Your task to perform on an android device: Open Chrome and go to settings Image 0: 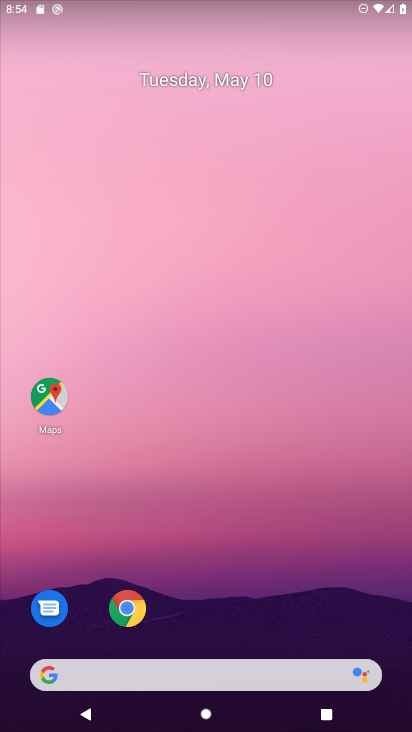
Step 0: drag from (356, 635) to (249, 95)
Your task to perform on an android device: Open Chrome and go to settings Image 1: 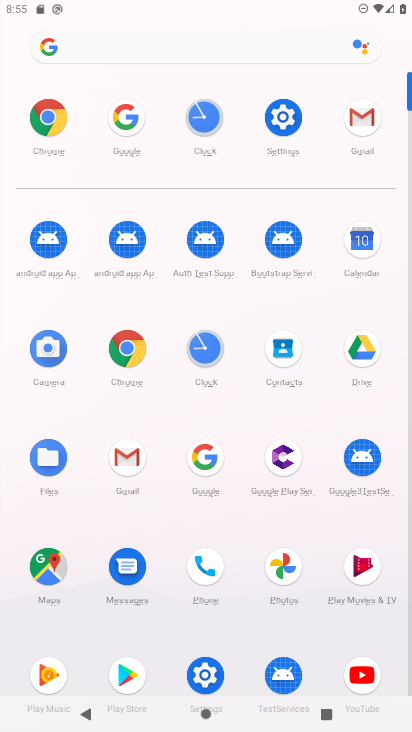
Step 1: click (126, 351)
Your task to perform on an android device: Open Chrome and go to settings Image 2: 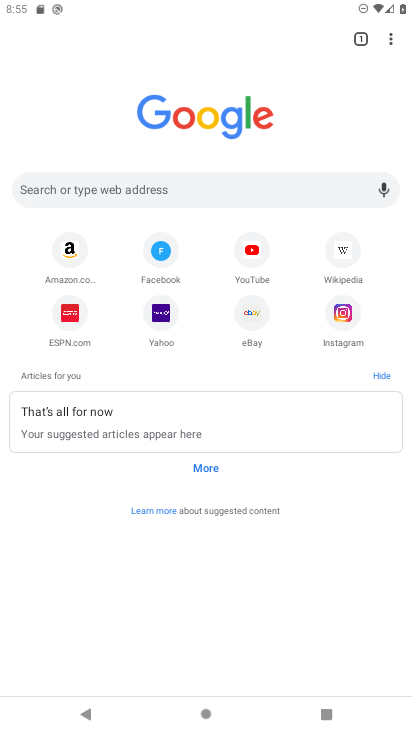
Step 2: click (390, 38)
Your task to perform on an android device: Open Chrome and go to settings Image 3: 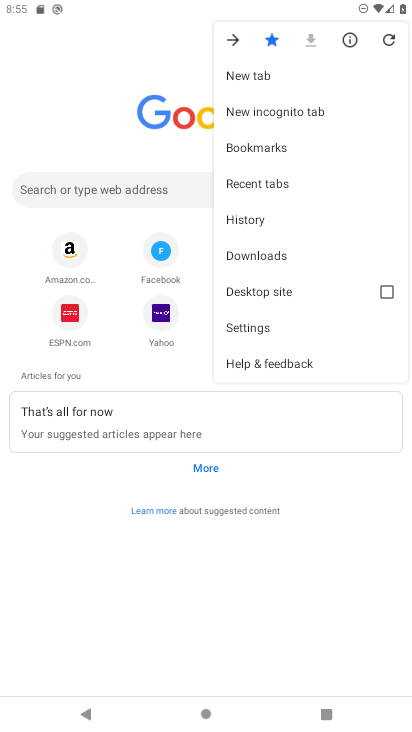
Step 3: click (280, 323)
Your task to perform on an android device: Open Chrome and go to settings Image 4: 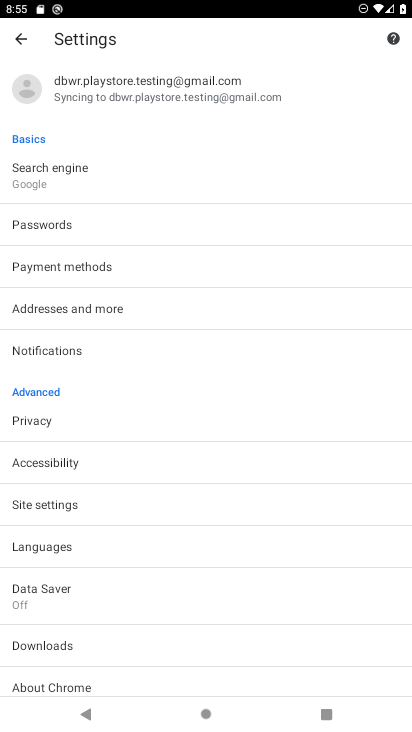
Step 4: task complete